Your task to perform on an android device: Open location settings Image 0: 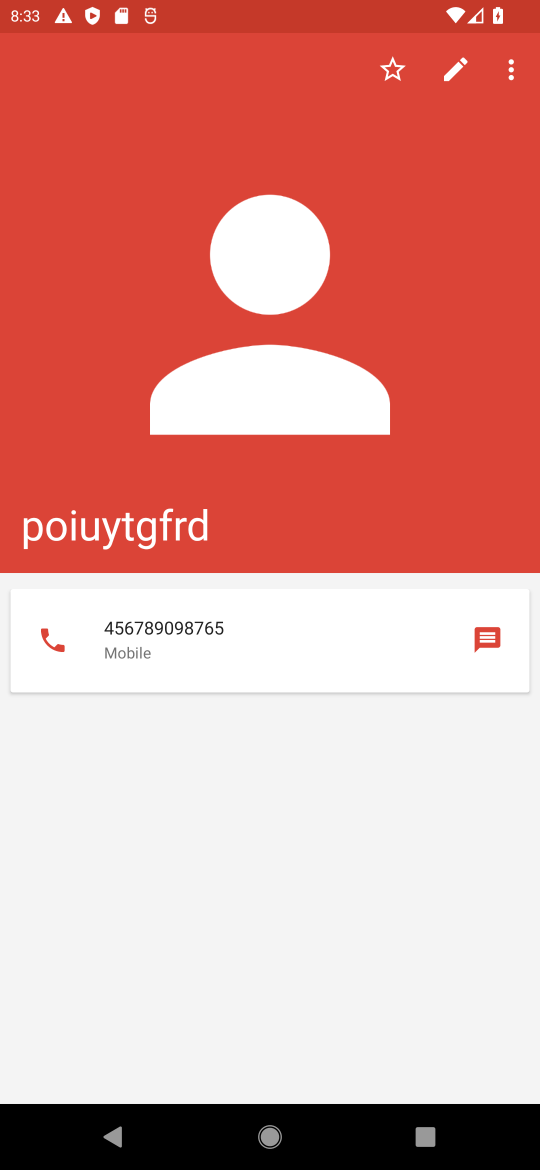
Step 0: press home button
Your task to perform on an android device: Open location settings Image 1: 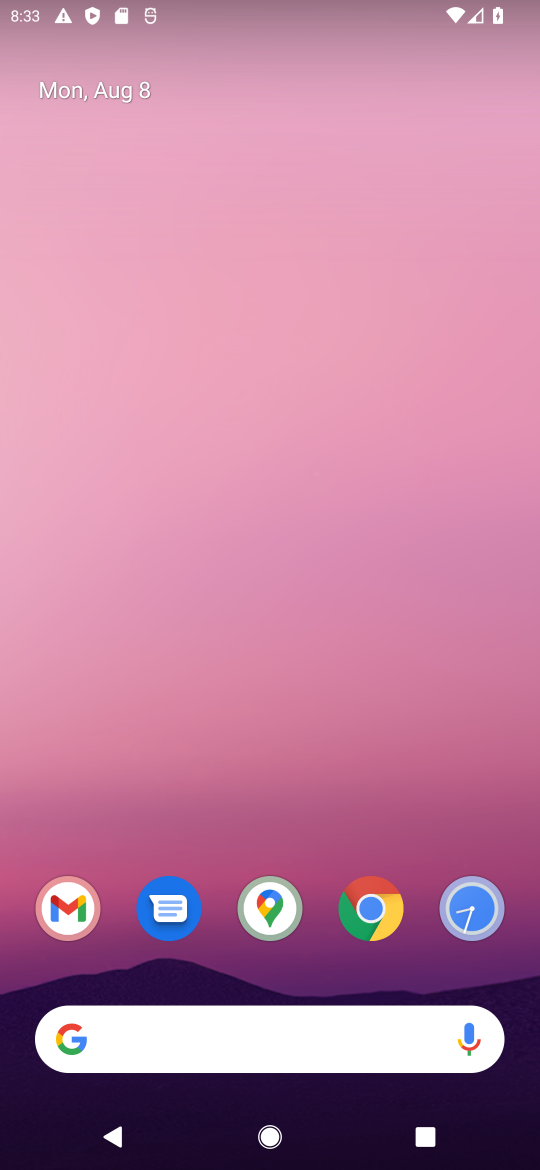
Step 1: drag from (222, 951) to (230, 419)
Your task to perform on an android device: Open location settings Image 2: 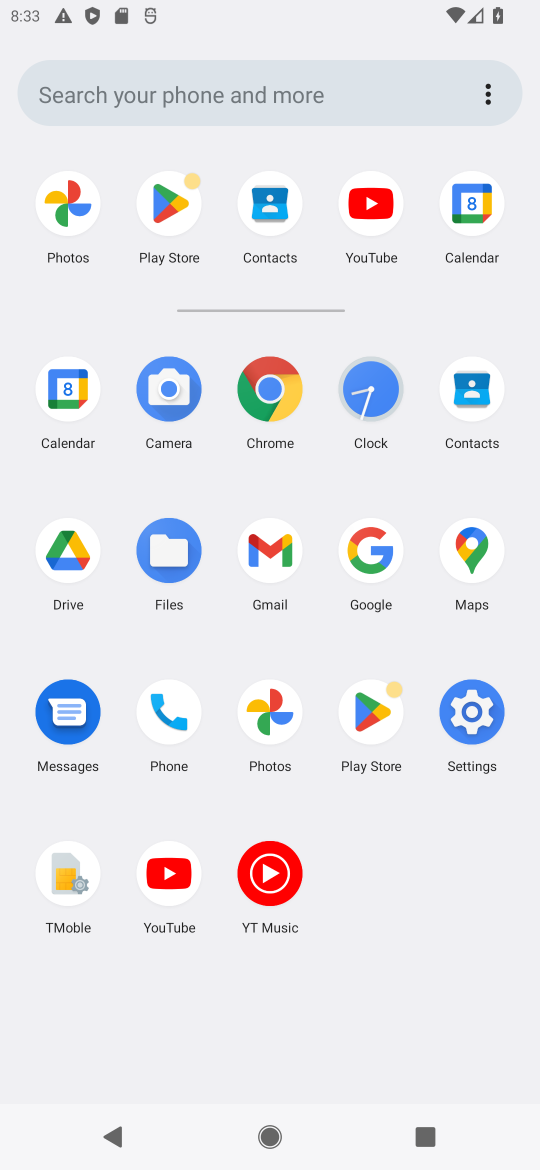
Step 2: click (468, 697)
Your task to perform on an android device: Open location settings Image 3: 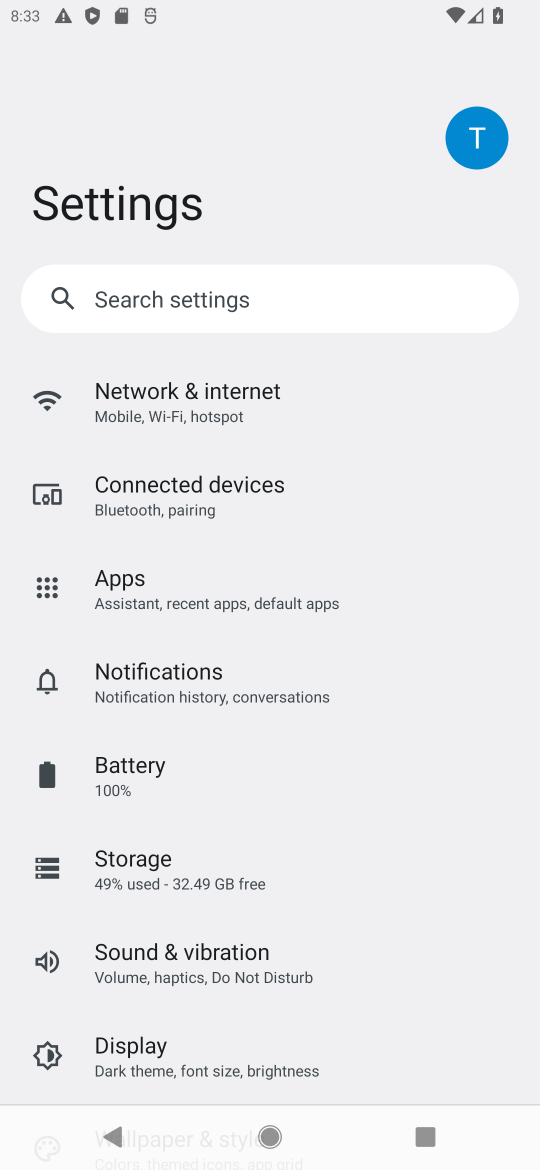
Step 3: drag from (121, 1009) to (166, 538)
Your task to perform on an android device: Open location settings Image 4: 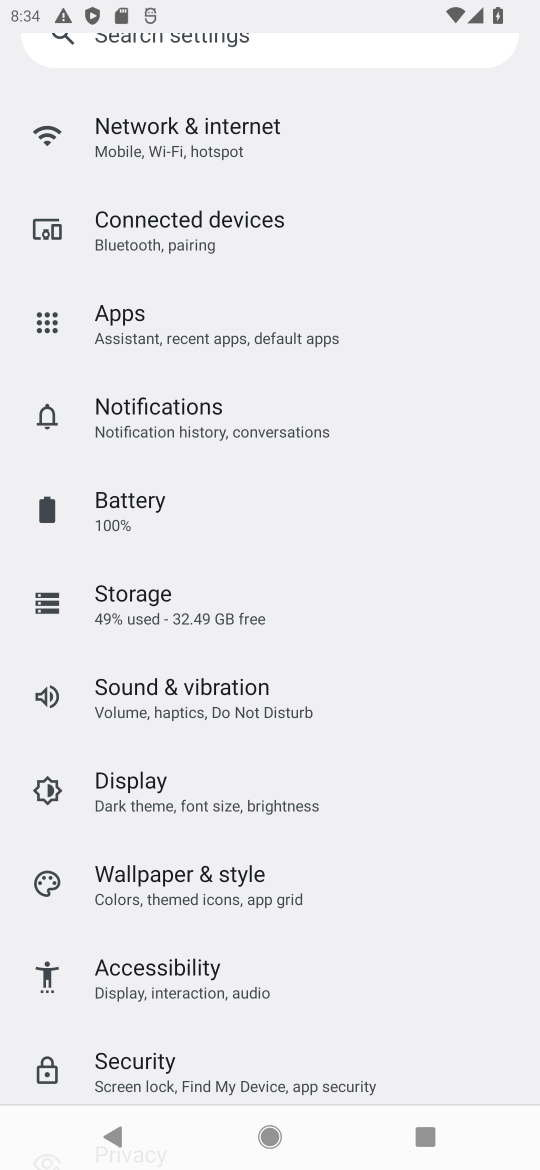
Step 4: drag from (229, 1021) to (222, 517)
Your task to perform on an android device: Open location settings Image 5: 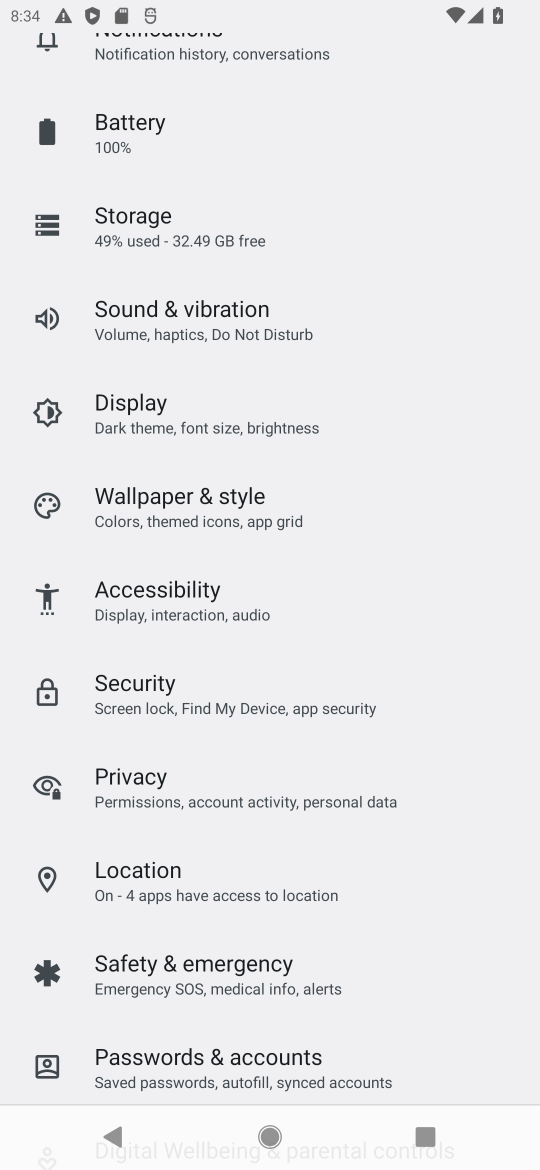
Step 5: click (294, 915)
Your task to perform on an android device: Open location settings Image 6: 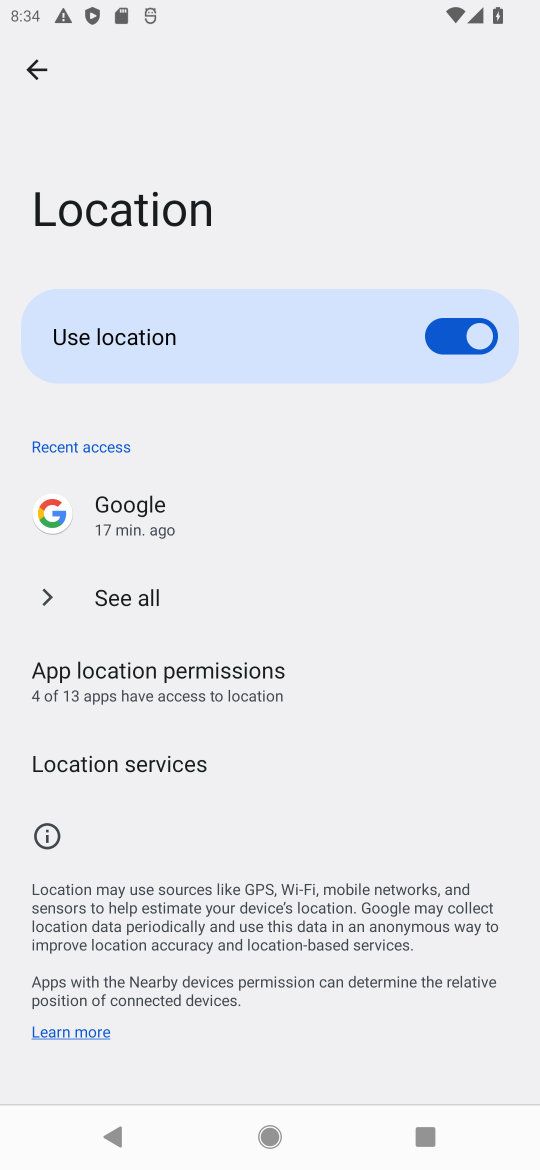
Step 6: task complete